Your task to perform on an android device: Clear the cart on newegg.com. Search for macbook on newegg.com, select the first entry, add it to the cart, then select checkout. Image 0: 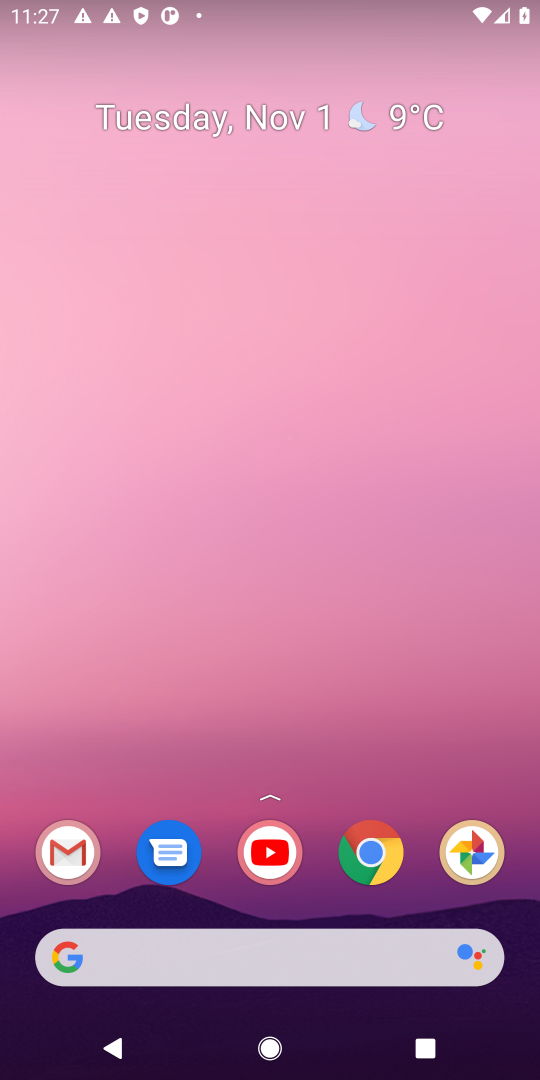
Step 0: drag from (359, 739) to (358, 202)
Your task to perform on an android device: Clear the cart on newegg.com. Search for macbook on newegg.com, select the first entry, add it to the cart, then select checkout. Image 1: 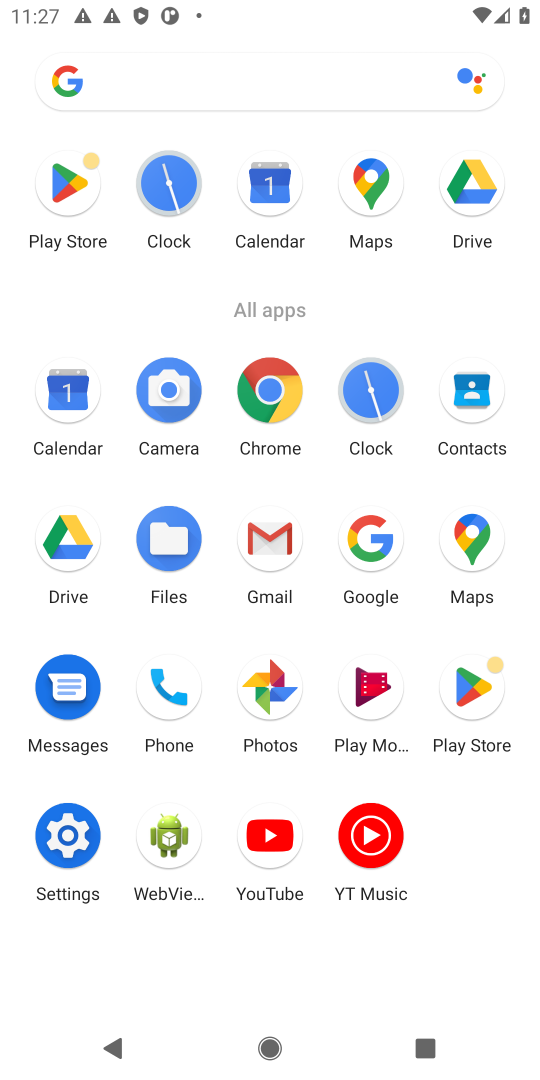
Step 1: click (378, 554)
Your task to perform on an android device: Clear the cart on newegg.com. Search for macbook on newegg.com, select the first entry, add it to the cart, then select checkout. Image 2: 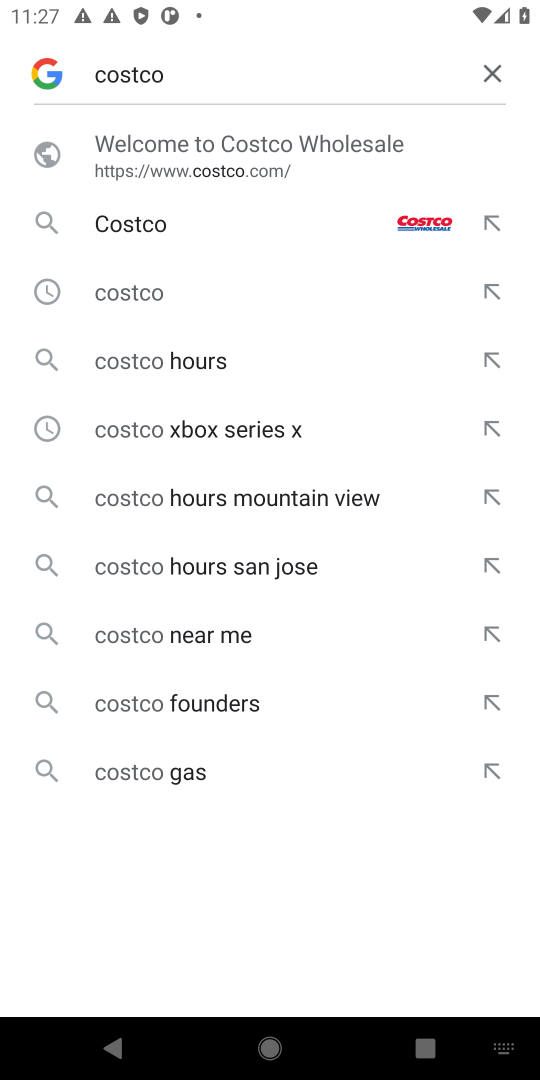
Step 2: click (486, 85)
Your task to perform on an android device: Clear the cart on newegg.com. Search for macbook on newegg.com, select the first entry, add it to the cart, then select checkout. Image 3: 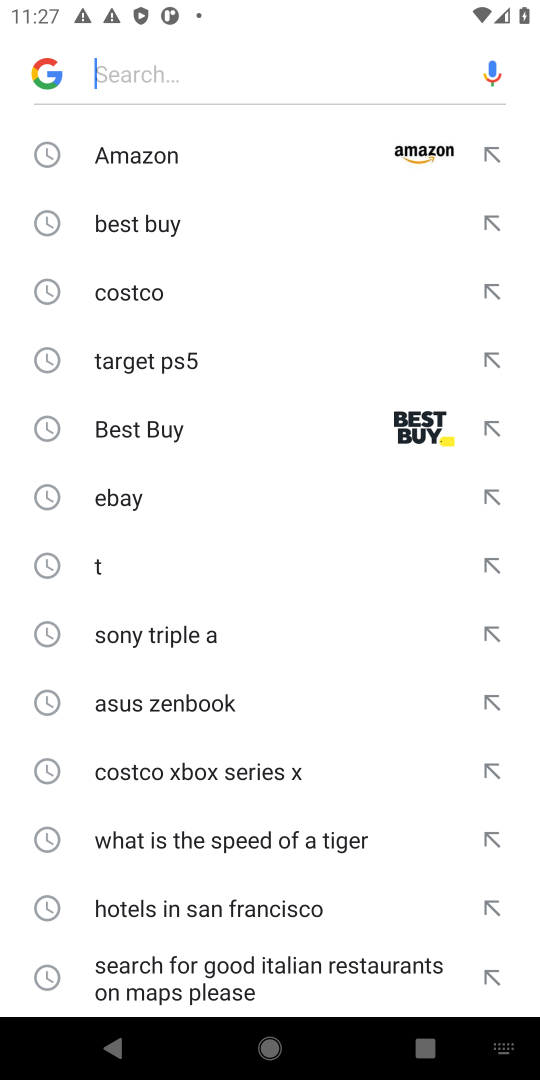
Step 3: type "newegg.com"
Your task to perform on an android device: Clear the cart on newegg.com. Search for macbook on newegg.com, select the first entry, add it to the cart, then select checkout. Image 4: 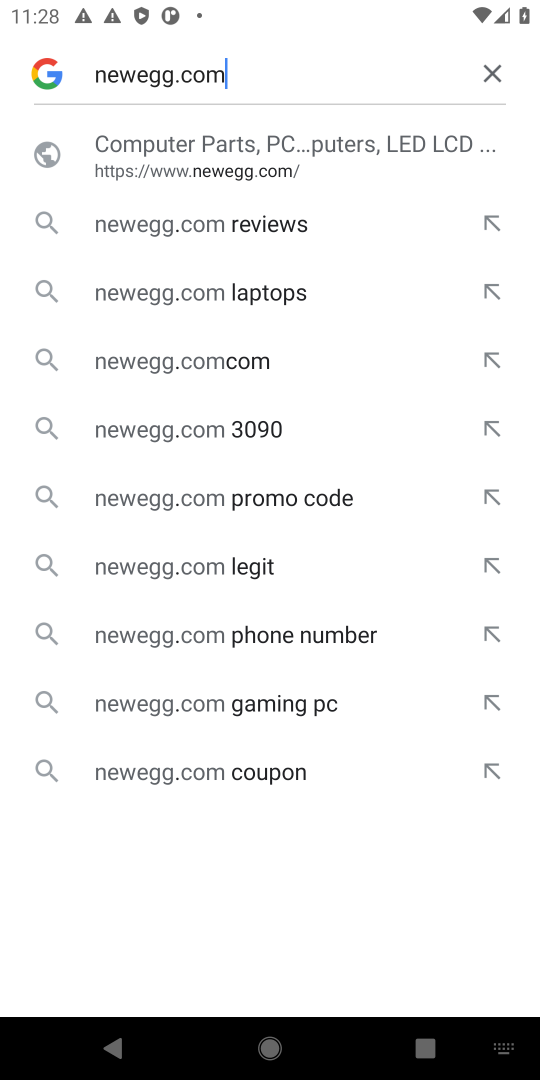
Step 4: click (369, 160)
Your task to perform on an android device: Clear the cart on newegg.com. Search for macbook on newegg.com, select the first entry, add it to the cart, then select checkout. Image 5: 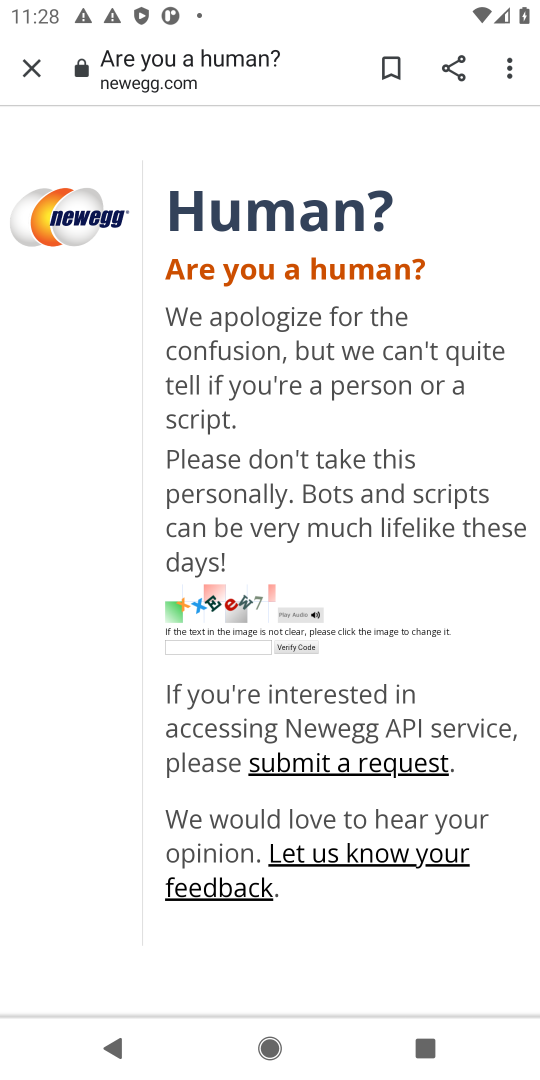
Step 5: task complete